Your task to perform on an android device: View the shopping cart on walmart. Search for "duracell triple a" on walmart, select the first entry, add it to the cart, then select checkout. Image 0: 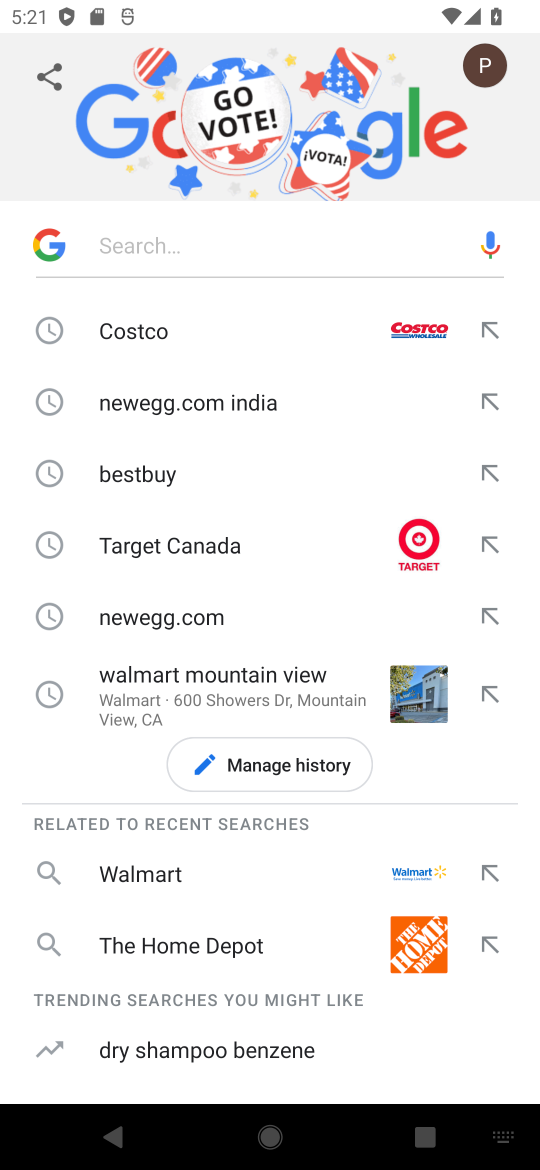
Step 0: press home button
Your task to perform on an android device: View the shopping cart on walmart. Search for "duracell triple a" on walmart, select the first entry, add it to the cart, then select checkout. Image 1: 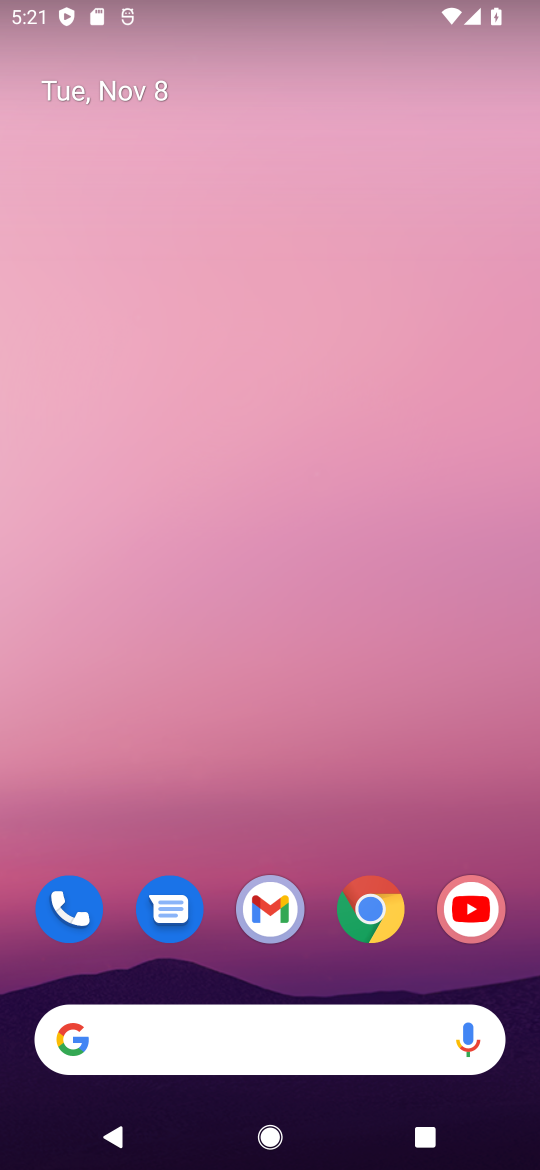
Step 1: click (362, 924)
Your task to perform on an android device: View the shopping cart on walmart. Search for "duracell triple a" on walmart, select the first entry, add it to the cart, then select checkout. Image 2: 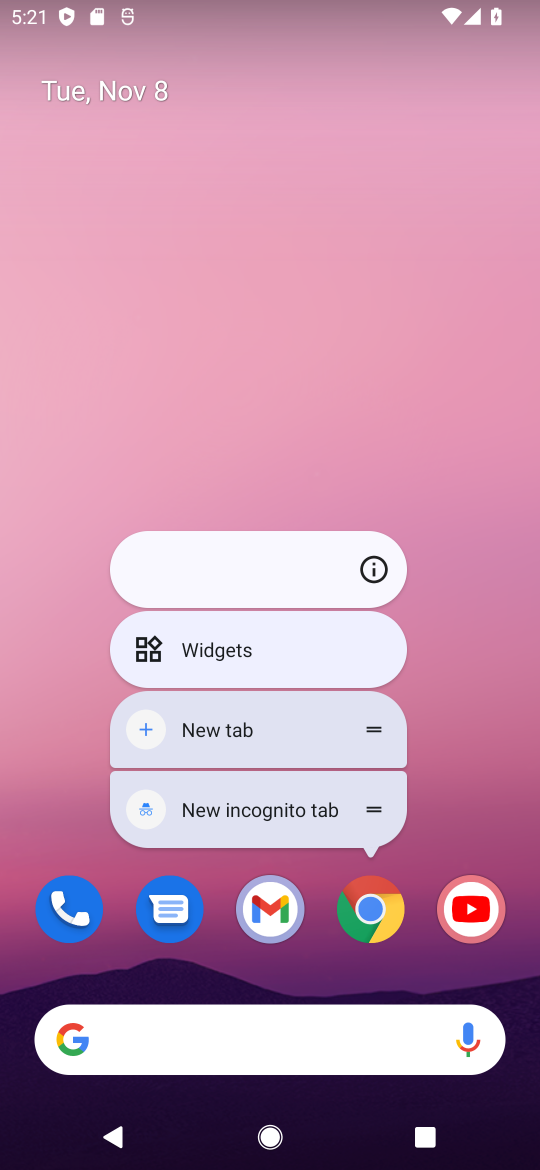
Step 2: click (378, 904)
Your task to perform on an android device: View the shopping cart on walmart. Search for "duracell triple a" on walmart, select the first entry, add it to the cart, then select checkout. Image 3: 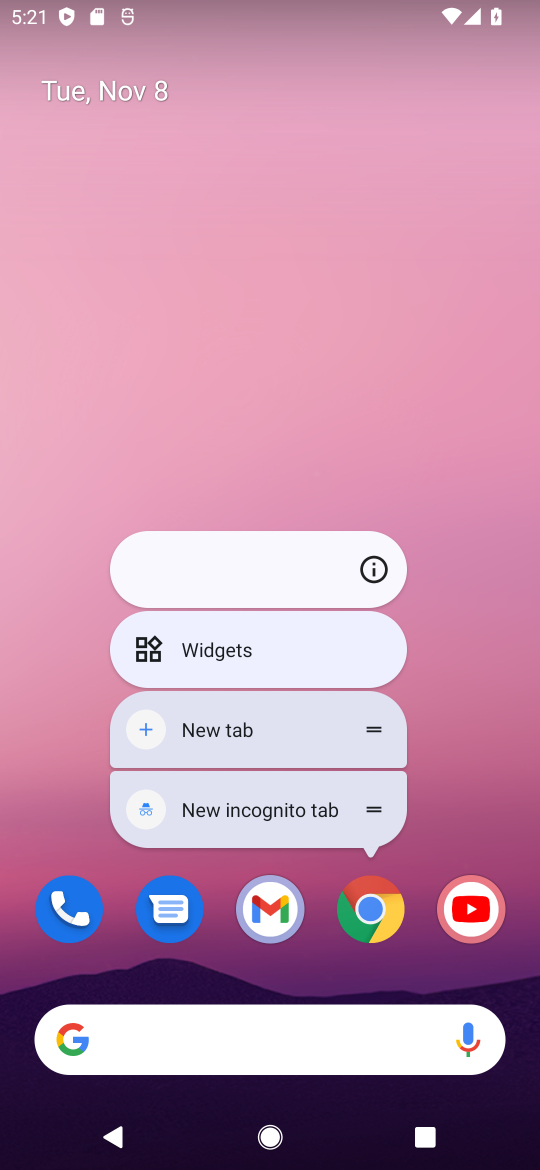
Step 3: click (369, 910)
Your task to perform on an android device: View the shopping cart on walmart. Search for "duracell triple a" on walmart, select the first entry, add it to the cart, then select checkout. Image 4: 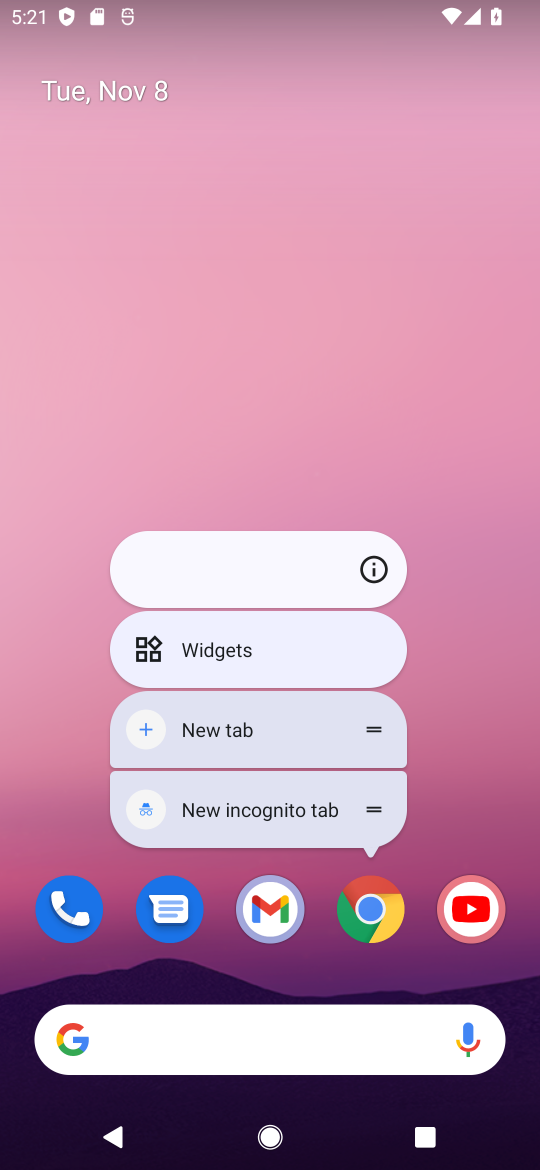
Step 4: click (375, 907)
Your task to perform on an android device: View the shopping cart on walmart. Search for "duracell triple a" on walmart, select the first entry, add it to the cart, then select checkout. Image 5: 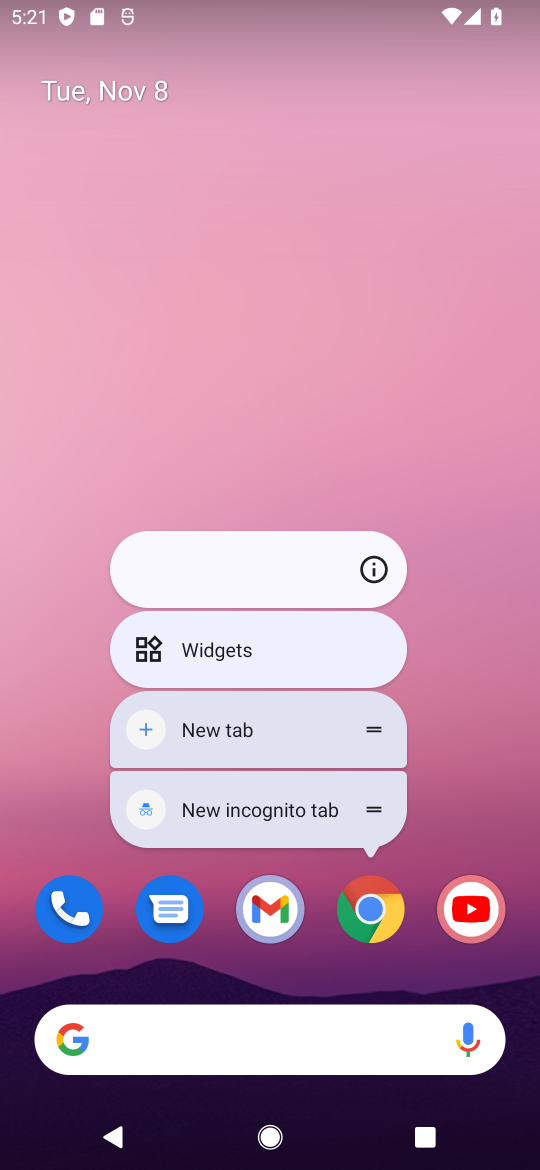
Step 5: click (372, 913)
Your task to perform on an android device: View the shopping cart on walmart. Search for "duracell triple a" on walmart, select the first entry, add it to the cart, then select checkout. Image 6: 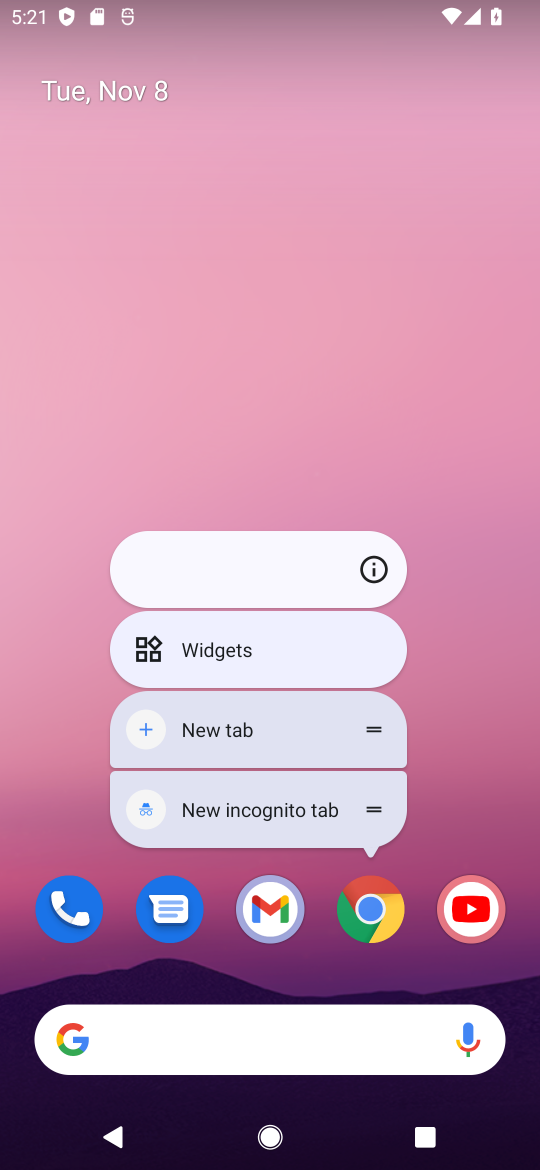
Step 6: click (372, 906)
Your task to perform on an android device: View the shopping cart on walmart. Search for "duracell triple a" on walmart, select the first entry, add it to the cart, then select checkout. Image 7: 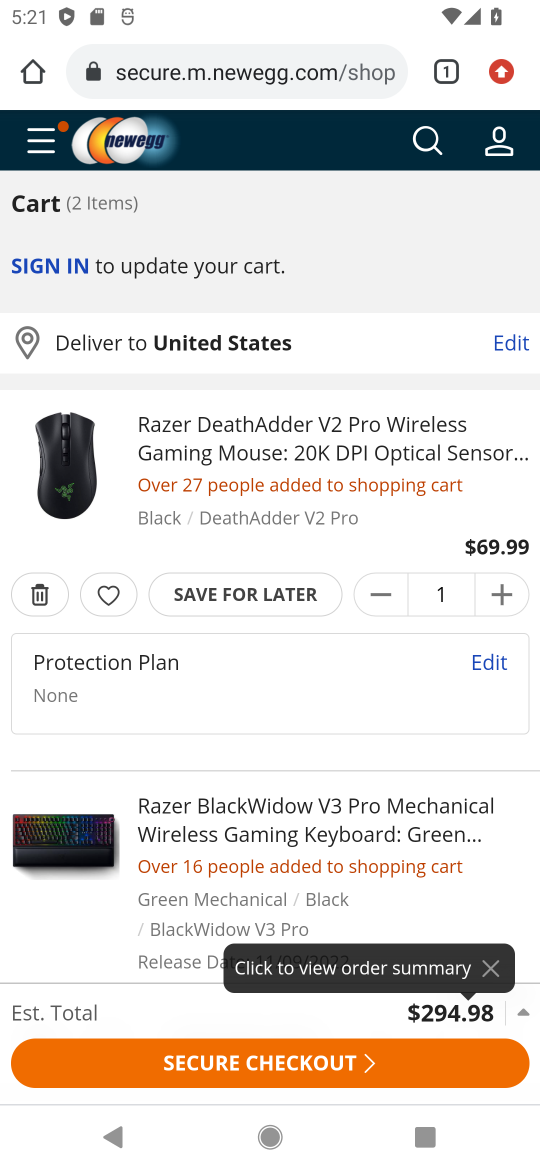
Step 7: click (367, 69)
Your task to perform on an android device: View the shopping cart on walmart. Search for "duracell triple a" on walmart, select the first entry, add it to the cart, then select checkout. Image 8: 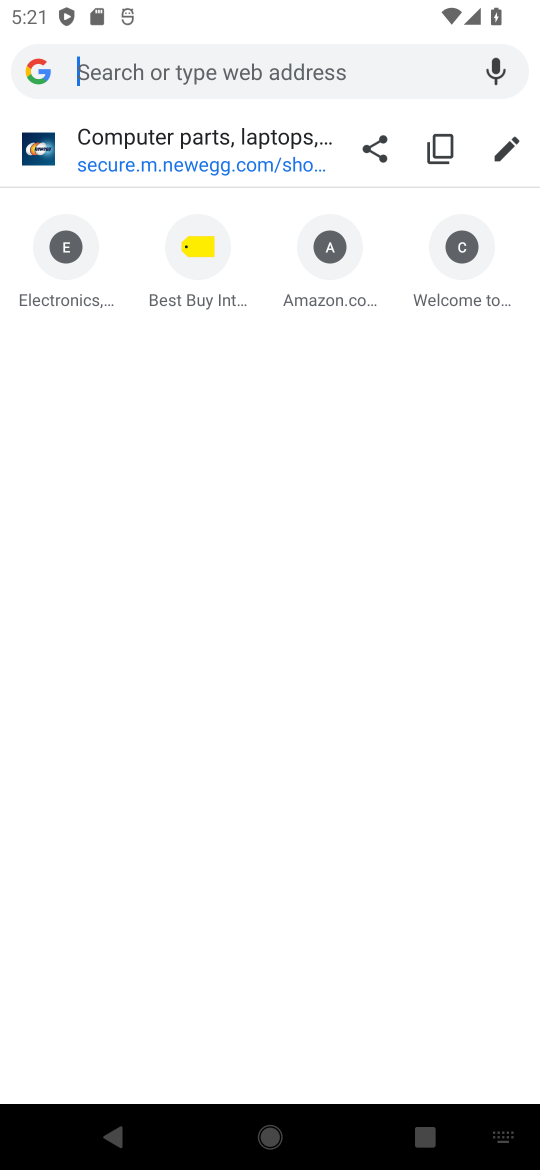
Step 8: drag from (389, 270) to (44, 232)
Your task to perform on an android device: View the shopping cart on walmart. Search for "duracell triple a" on walmart, select the first entry, add it to the cart, then select checkout. Image 9: 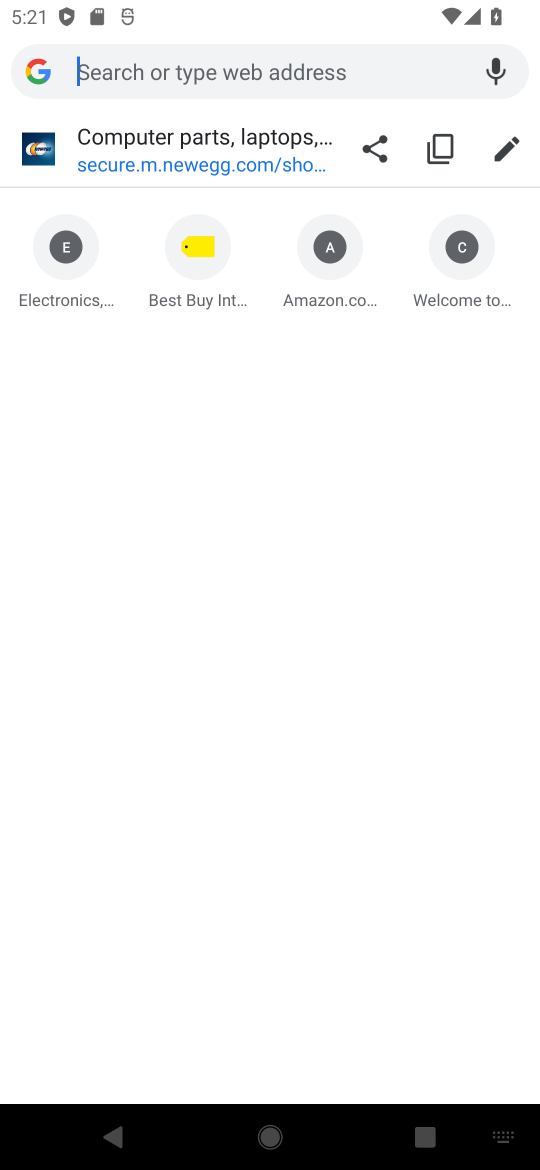
Step 9: drag from (496, 262) to (47, 226)
Your task to perform on an android device: View the shopping cart on walmart. Search for "duracell triple a" on walmart, select the first entry, add it to the cart, then select checkout. Image 10: 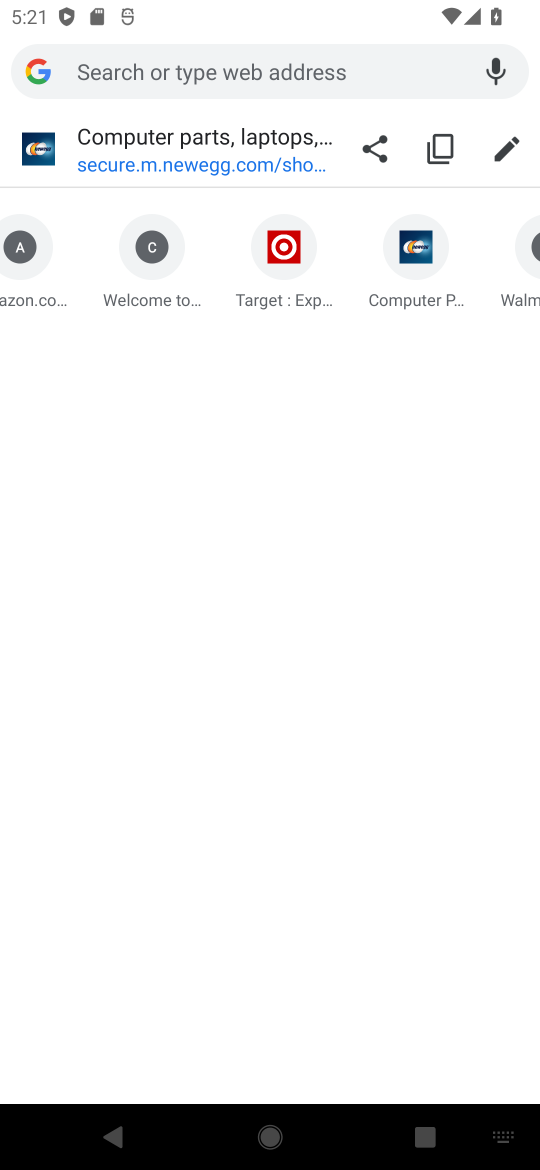
Step 10: drag from (474, 252) to (48, 266)
Your task to perform on an android device: View the shopping cart on walmart. Search for "duracell triple a" on walmart, select the first entry, add it to the cart, then select checkout. Image 11: 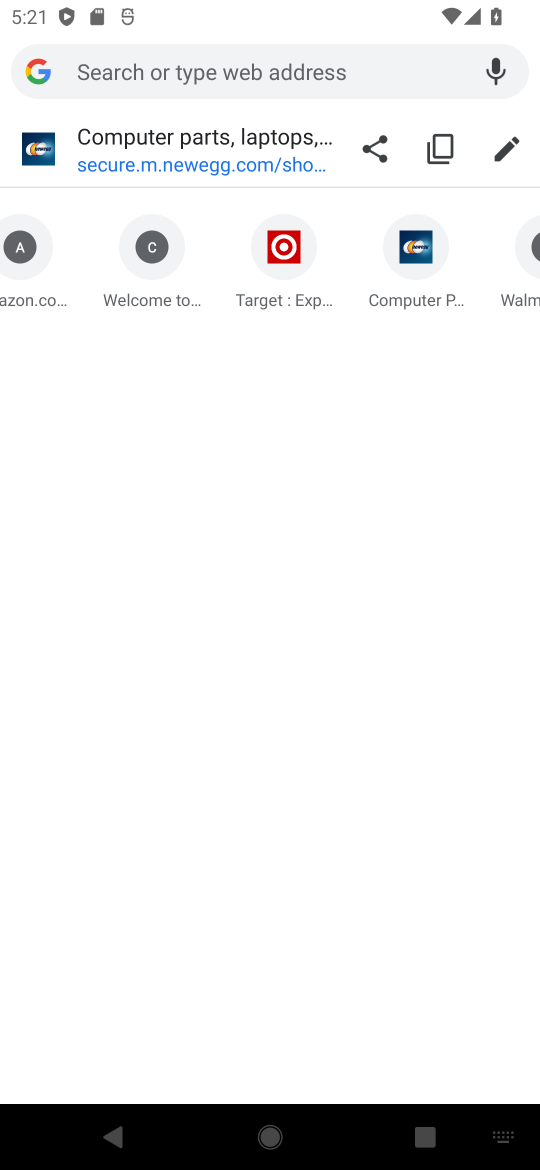
Step 11: drag from (444, 242) to (121, 234)
Your task to perform on an android device: View the shopping cart on walmart. Search for "duracell triple a" on walmart, select the first entry, add it to the cart, then select checkout. Image 12: 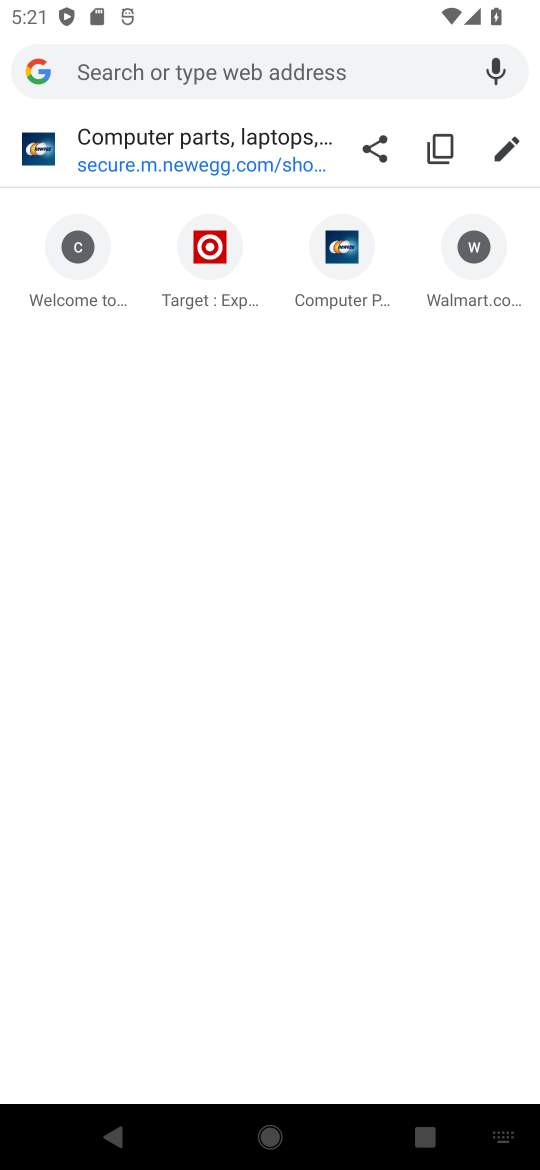
Step 12: click (477, 297)
Your task to perform on an android device: View the shopping cart on walmart. Search for "duracell triple a" on walmart, select the first entry, add it to the cart, then select checkout. Image 13: 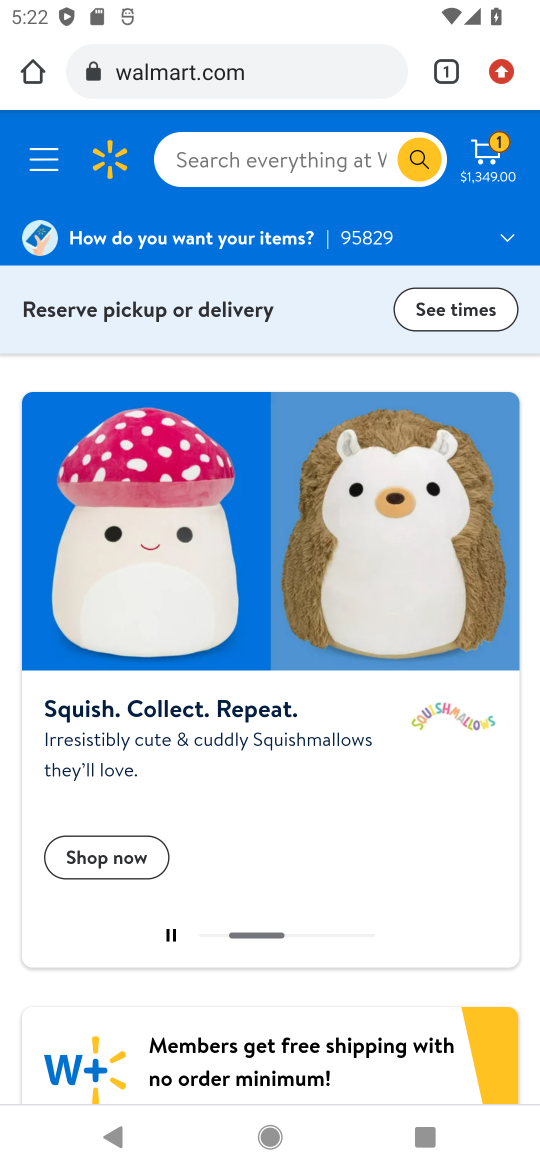
Step 13: click (264, 158)
Your task to perform on an android device: View the shopping cart on walmart. Search for "duracell triple a" on walmart, select the first entry, add it to the cart, then select checkout. Image 14: 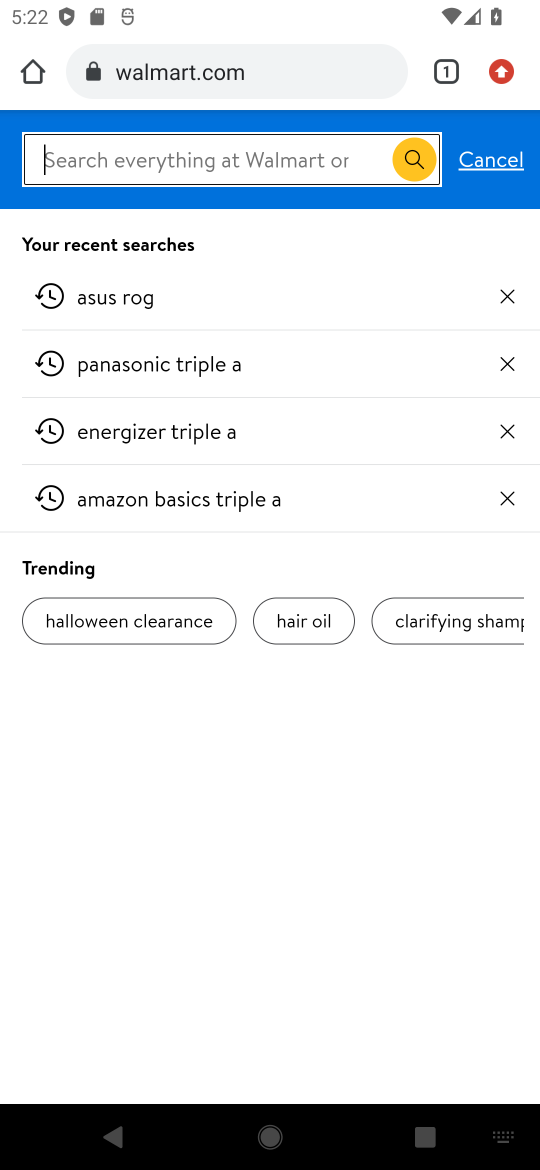
Step 14: type "duracell triple a"
Your task to perform on an android device: View the shopping cart on walmart. Search for "duracell triple a" on walmart, select the first entry, add it to the cart, then select checkout. Image 15: 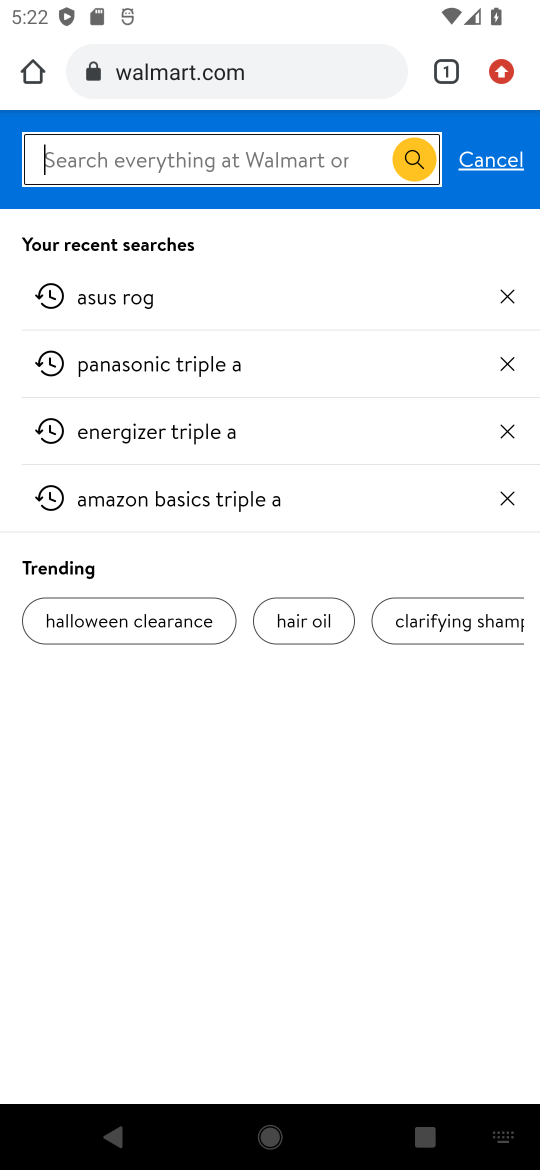
Step 15: press enter
Your task to perform on an android device: View the shopping cart on walmart. Search for "duracell triple a" on walmart, select the first entry, add it to the cart, then select checkout. Image 16: 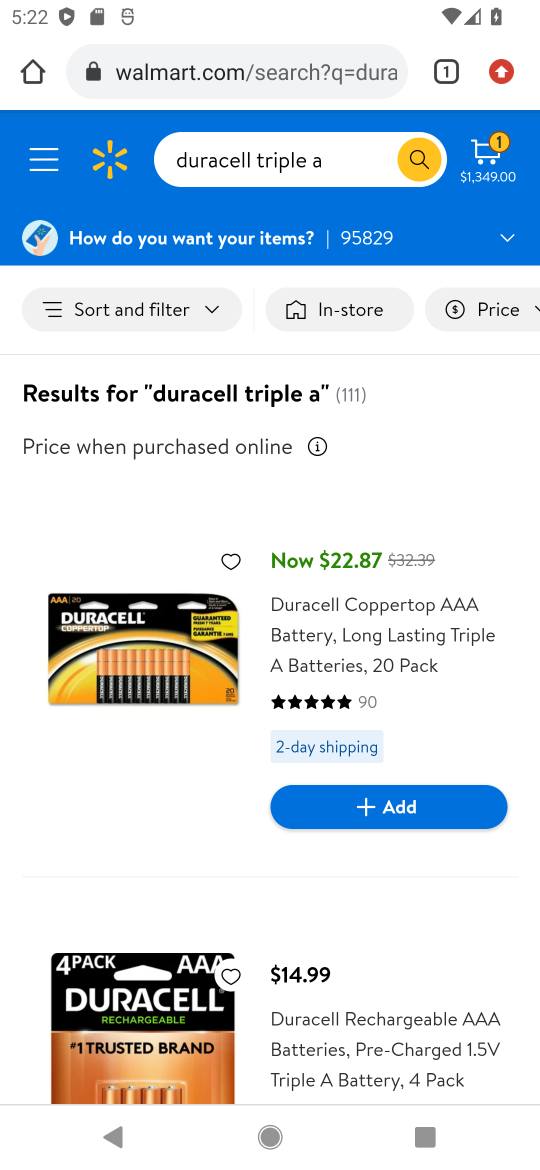
Step 16: click (403, 811)
Your task to perform on an android device: View the shopping cart on walmart. Search for "duracell triple a" on walmart, select the first entry, add it to the cart, then select checkout. Image 17: 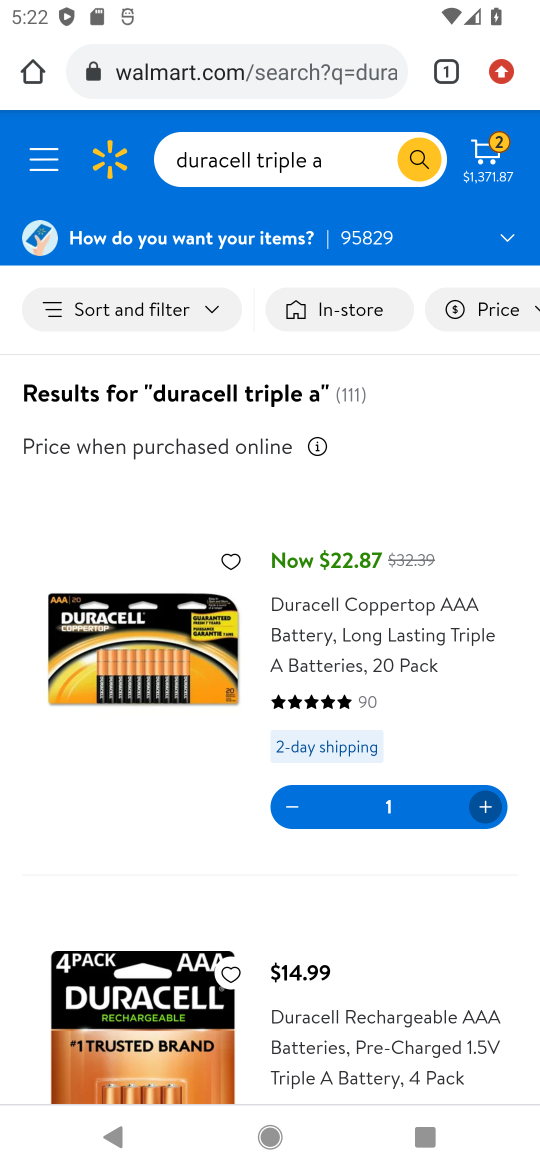
Step 17: click (494, 147)
Your task to perform on an android device: View the shopping cart on walmart. Search for "duracell triple a" on walmart, select the first entry, add it to the cart, then select checkout. Image 18: 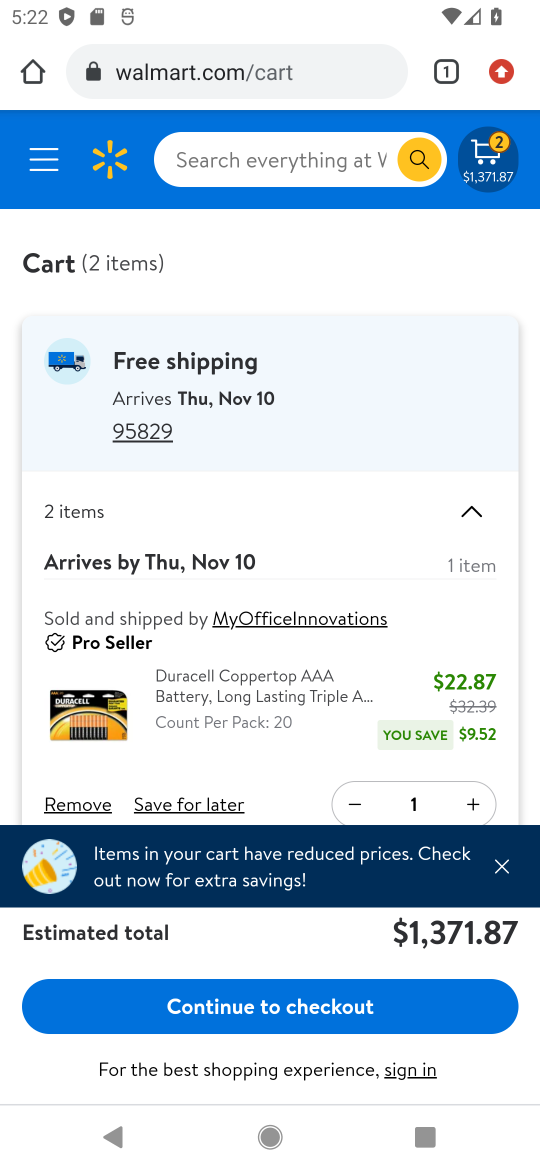
Step 18: drag from (217, 759) to (529, 134)
Your task to perform on an android device: View the shopping cart on walmart. Search for "duracell triple a" on walmart, select the first entry, add it to the cart, then select checkout. Image 19: 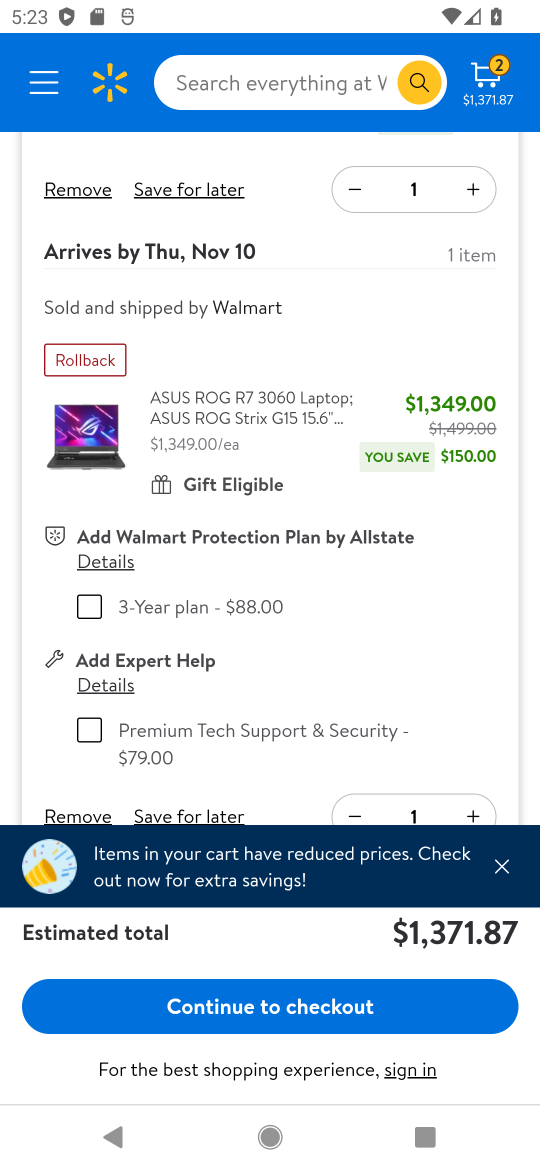
Step 19: drag from (308, 620) to (412, 452)
Your task to perform on an android device: View the shopping cart on walmart. Search for "duracell triple a" on walmart, select the first entry, add it to the cart, then select checkout. Image 20: 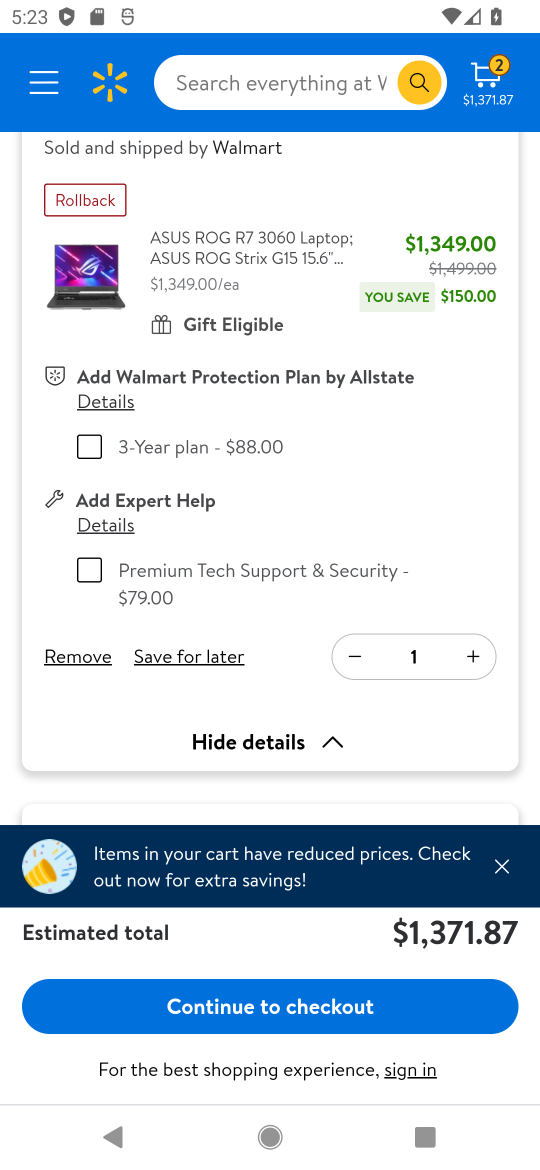
Step 20: click (90, 660)
Your task to perform on an android device: View the shopping cart on walmart. Search for "duracell triple a" on walmart, select the first entry, add it to the cart, then select checkout. Image 21: 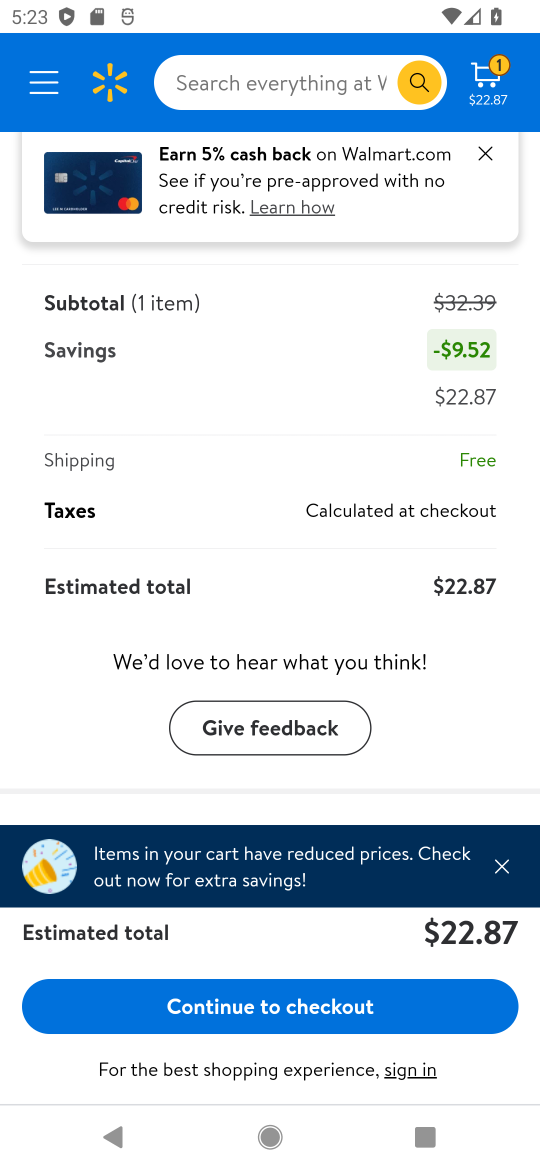
Step 21: click (304, 1001)
Your task to perform on an android device: View the shopping cart on walmart. Search for "duracell triple a" on walmart, select the first entry, add it to the cart, then select checkout. Image 22: 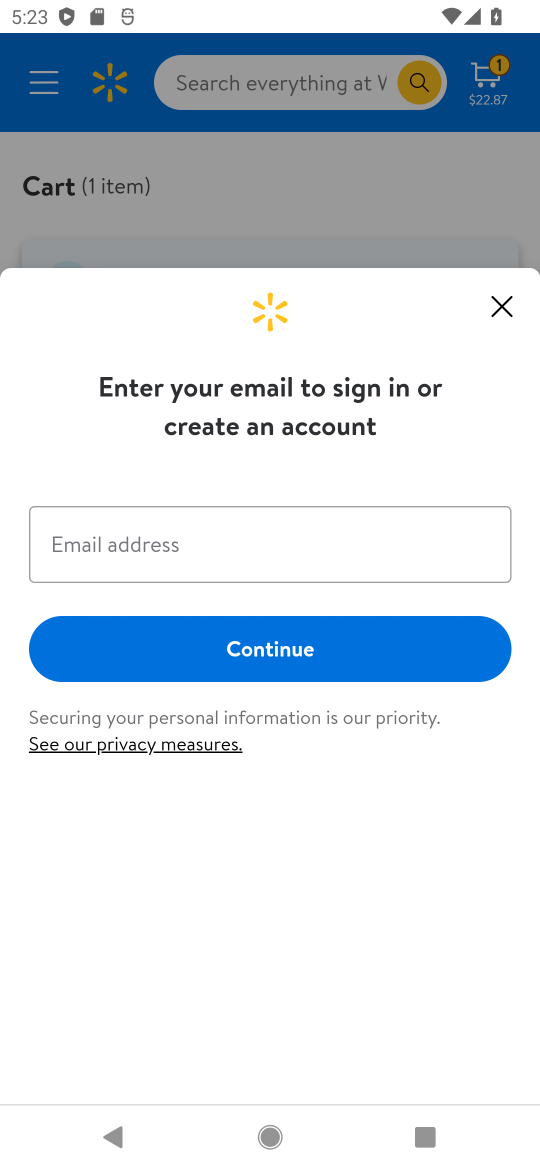
Step 22: task complete